Your task to perform on an android device: empty trash in the gmail app Image 0: 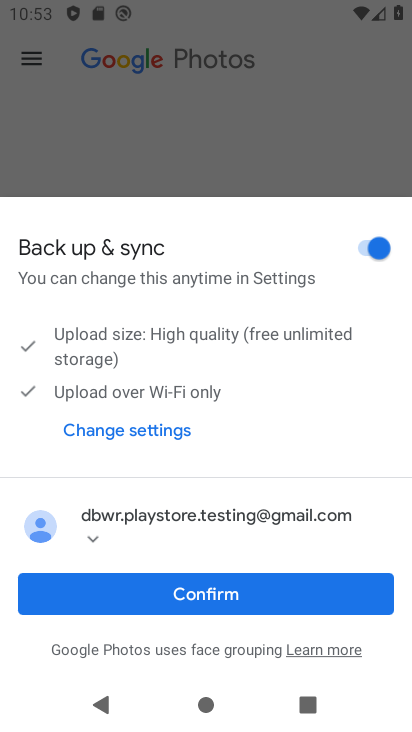
Step 0: press home button
Your task to perform on an android device: empty trash in the gmail app Image 1: 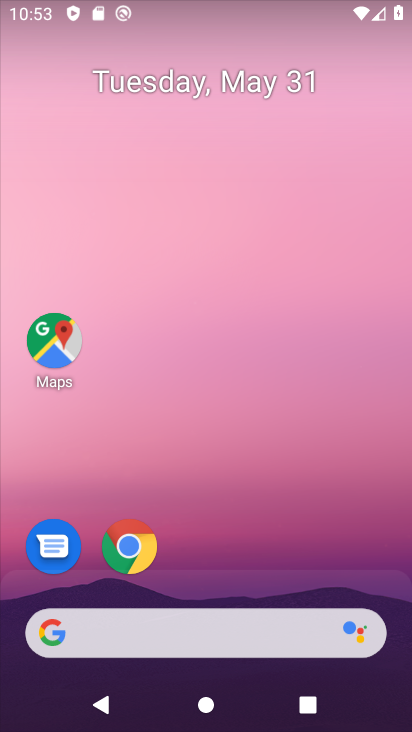
Step 1: drag from (225, 608) to (275, 29)
Your task to perform on an android device: empty trash in the gmail app Image 2: 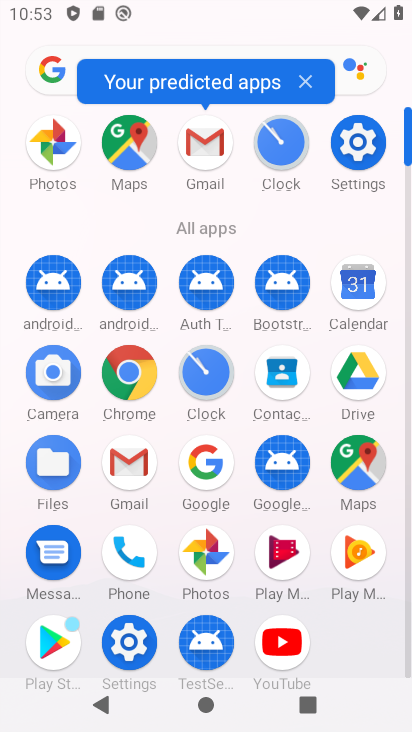
Step 2: click (122, 470)
Your task to perform on an android device: empty trash in the gmail app Image 3: 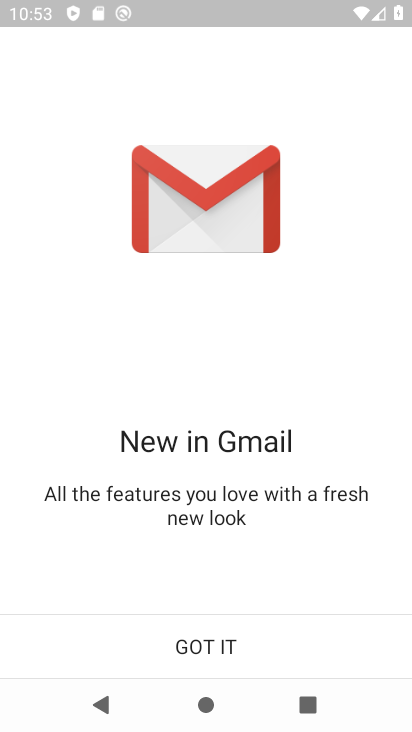
Step 3: click (201, 632)
Your task to perform on an android device: empty trash in the gmail app Image 4: 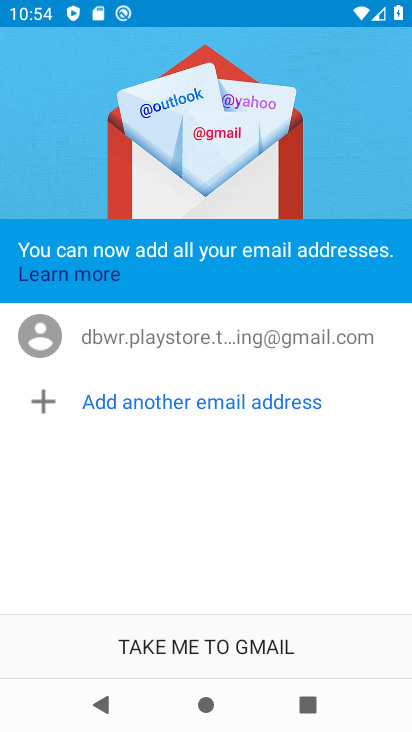
Step 4: click (211, 649)
Your task to perform on an android device: empty trash in the gmail app Image 5: 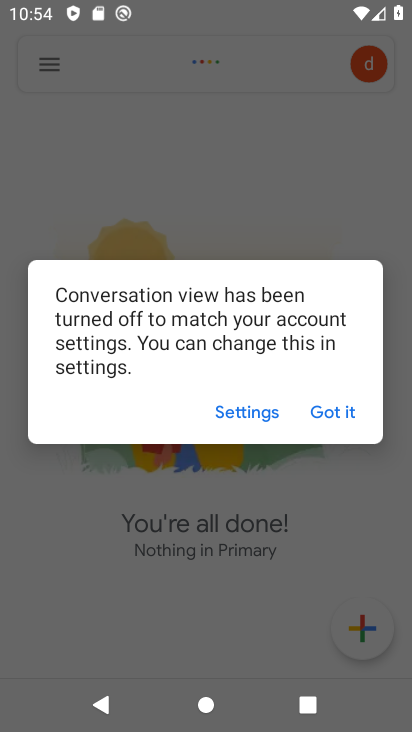
Step 5: click (334, 414)
Your task to perform on an android device: empty trash in the gmail app Image 6: 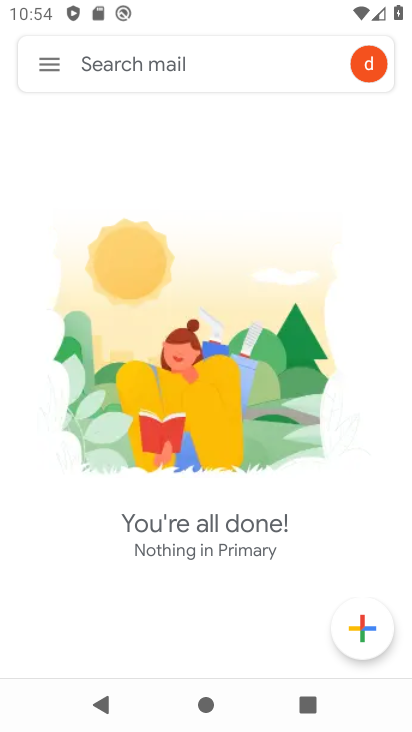
Step 6: click (43, 66)
Your task to perform on an android device: empty trash in the gmail app Image 7: 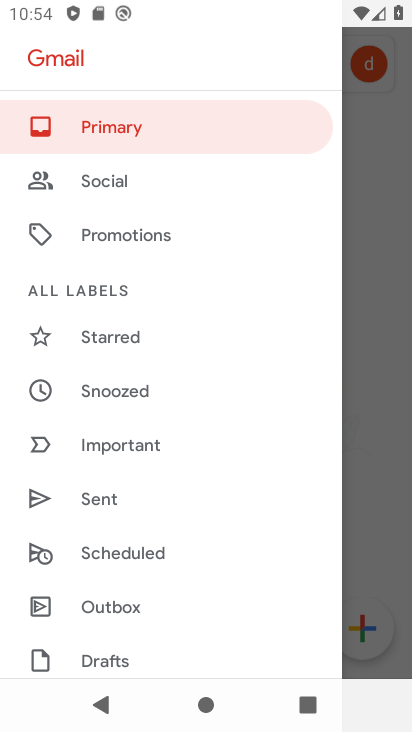
Step 7: drag from (118, 620) to (114, 170)
Your task to perform on an android device: empty trash in the gmail app Image 8: 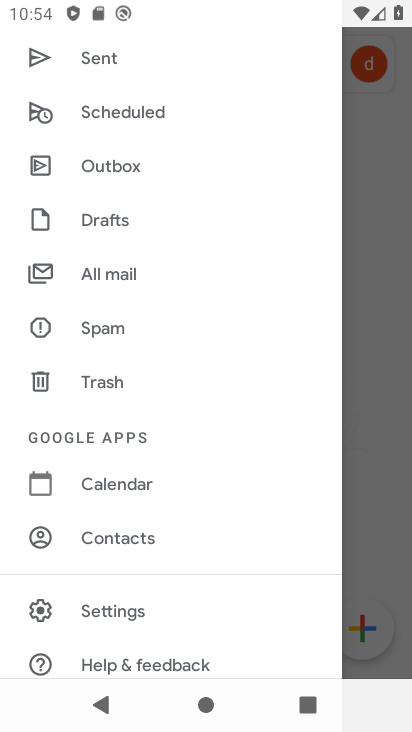
Step 8: click (115, 388)
Your task to perform on an android device: empty trash in the gmail app Image 9: 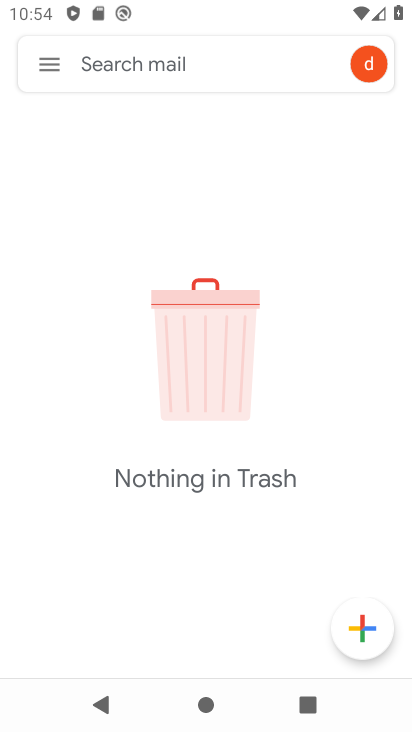
Step 9: task complete